Your task to perform on an android device: change the upload size in google photos Image 0: 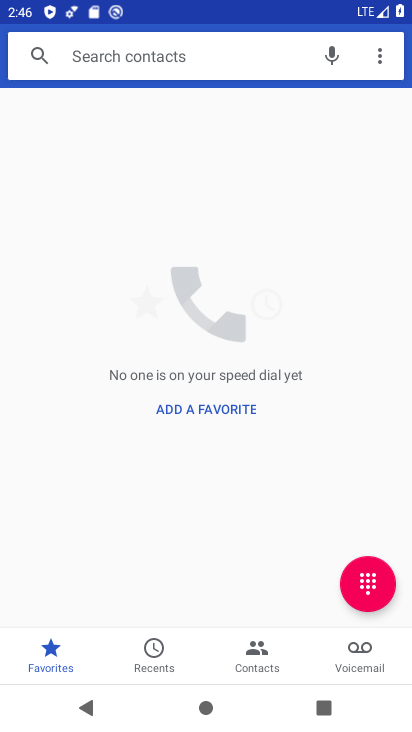
Step 0: press home button
Your task to perform on an android device: change the upload size in google photos Image 1: 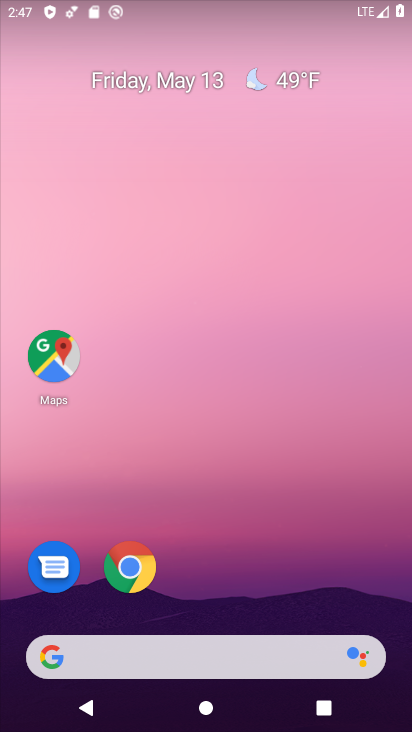
Step 1: drag from (212, 619) to (151, 0)
Your task to perform on an android device: change the upload size in google photos Image 2: 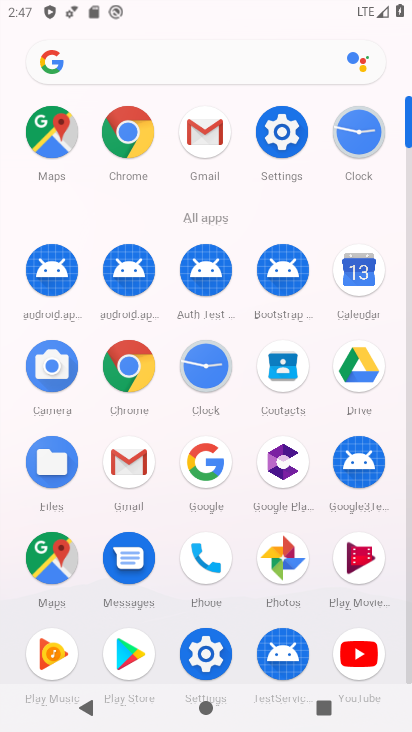
Step 2: click (276, 549)
Your task to perform on an android device: change the upload size in google photos Image 3: 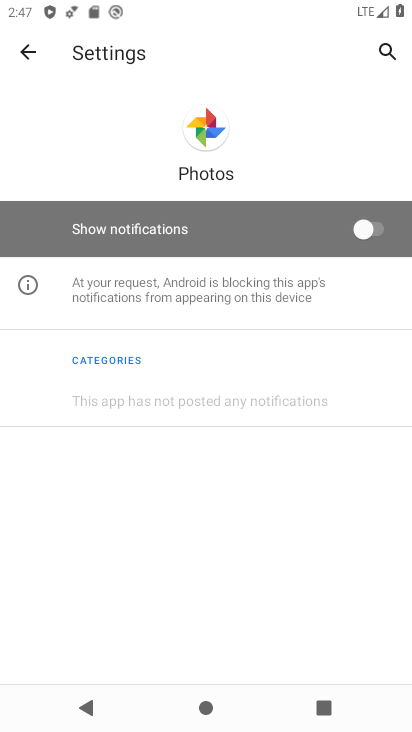
Step 3: click (39, 38)
Your task to perform on an android device: change the upload size in google photos Image 4: 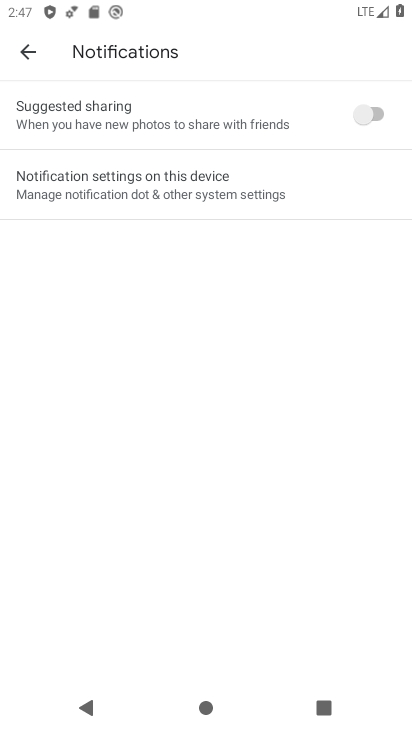
Step 4: click (39, 38)
Your task to perform on an android device: change the upload size in google photos Image 5: 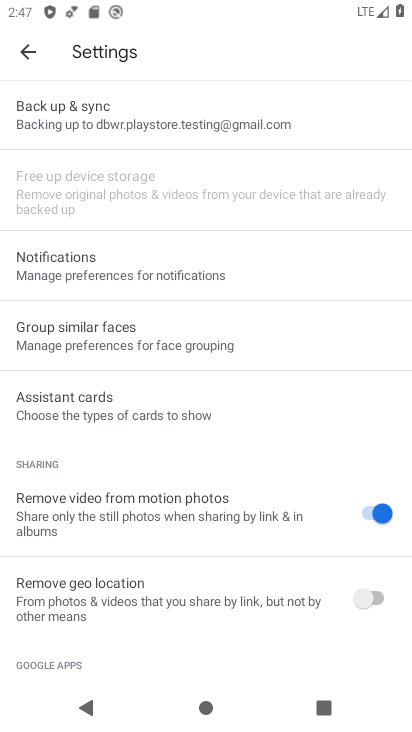
Step 5: click (98, 116)
Your task to perform on an android device: change the upload size in google photos Image 6: 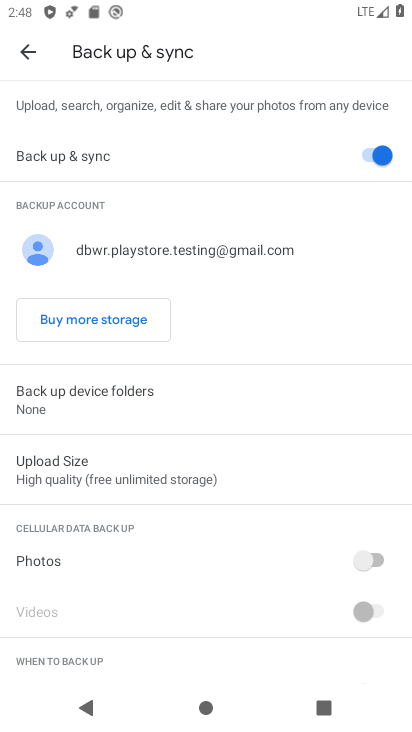
Step 6: click (80, 472)
Your task to perform on an android device: change the upload size in google photos Image 7: 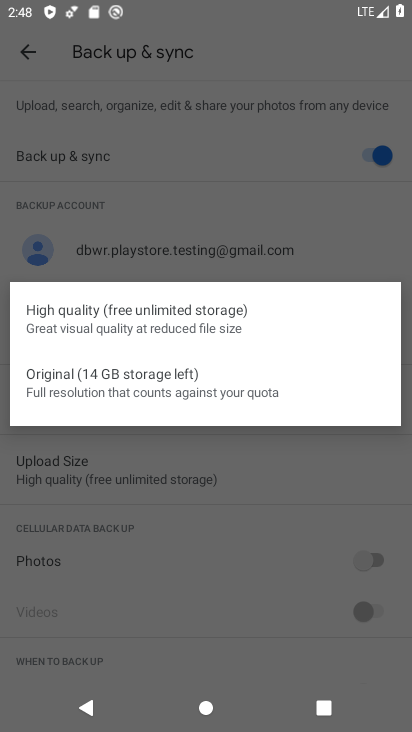
Step 7: click (96, 385)
Your task to perform on an android device: change the upload size in google photos Image 8: 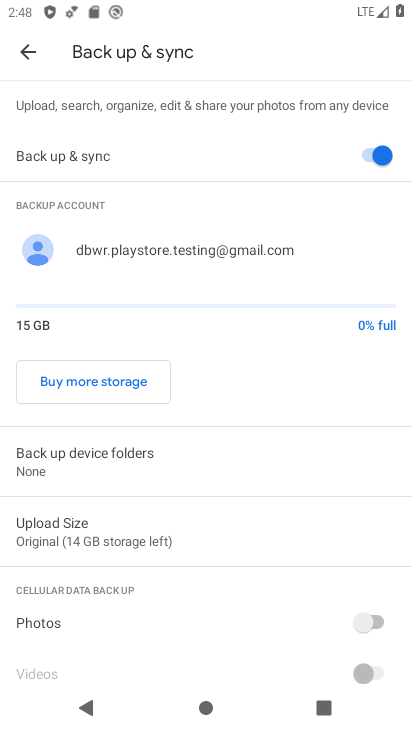
Step 8: task complete